Your task to perform on an android device: Open calendar and show me the fourth week of next month Image 0: 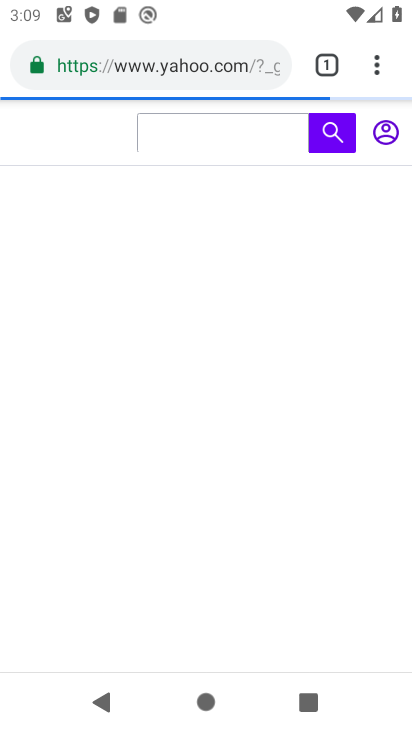
Step 0: press back button
Your task to perform on an android device: Open calendar and show me the fourth week of next month Image 1: 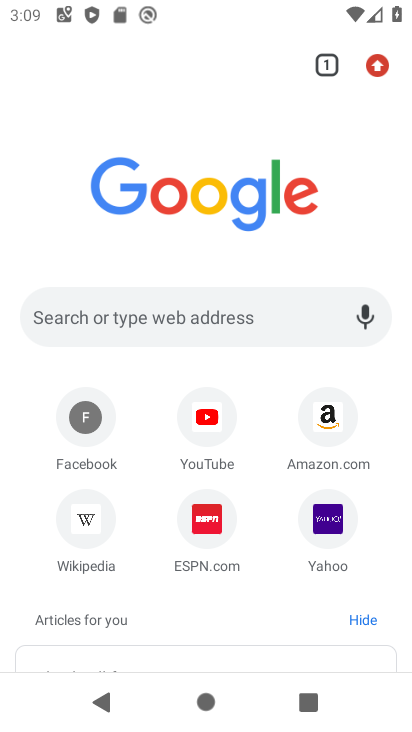
Step 1: press back button
Your task to perform on an android device: Open calendar and show me the fourth week of next month Image 2: 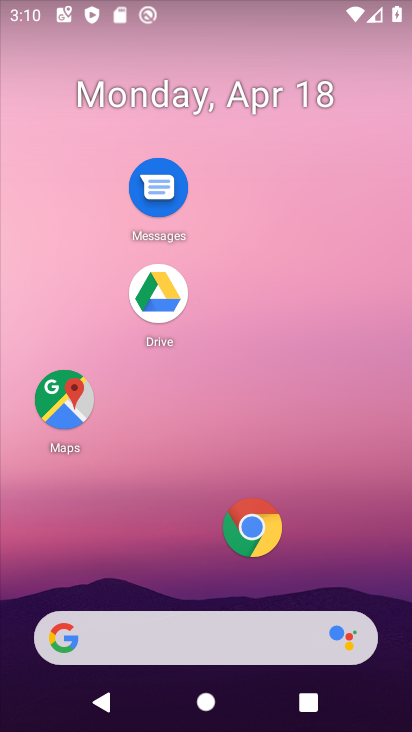
Step 2: drag from (189, 515) to (226, 4)
Your task to perform on an android device: Open calendar and show me the fourth week of next month Image 3: 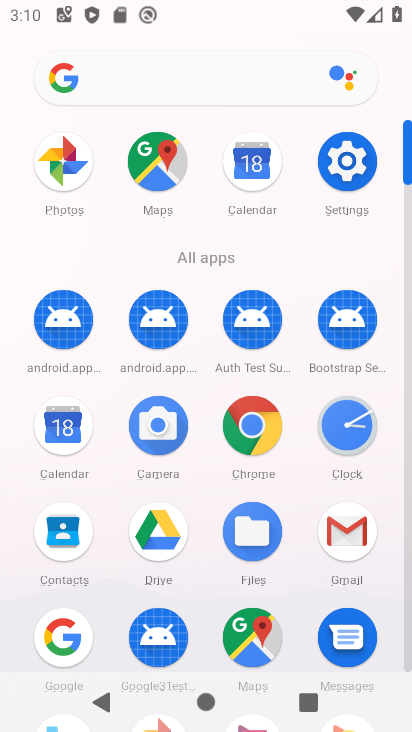
Step 3: click (72, 431)
Your task to perform on an android device: Open calendar and show me the fourth week of next month Image 4: 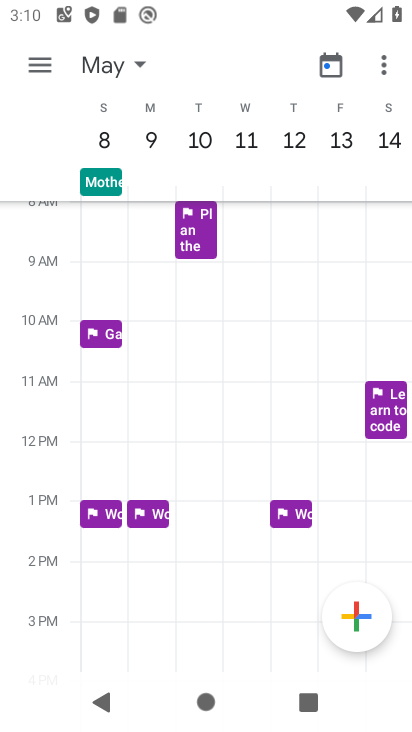
Step 4: click (340, 68)
Your task to perform on an android device: Open calendar and show me the fourth week of next month Image 5: 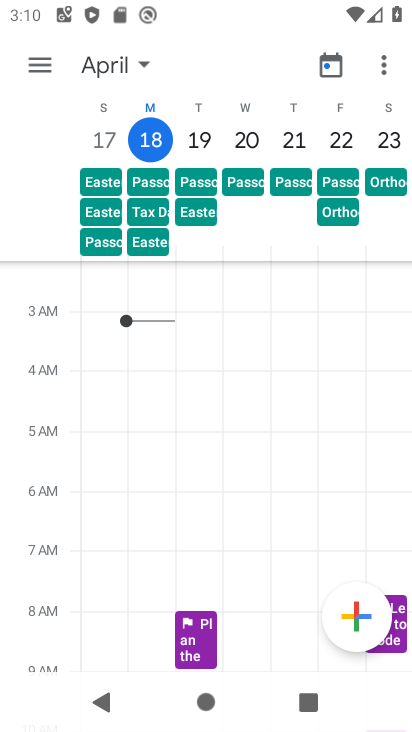
Step 5: click (129, 71)
Your task to perform on an android device: Open calendar and show me the fourth week of next month Image 6: 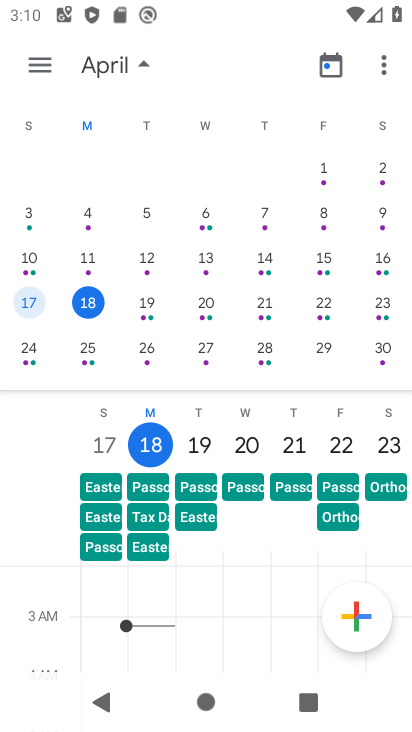
Step 6: drag from (363, 282) to (14, 279)
Your task to perform on an android device: Open calendar and show me the fourth week of next month Image 7: 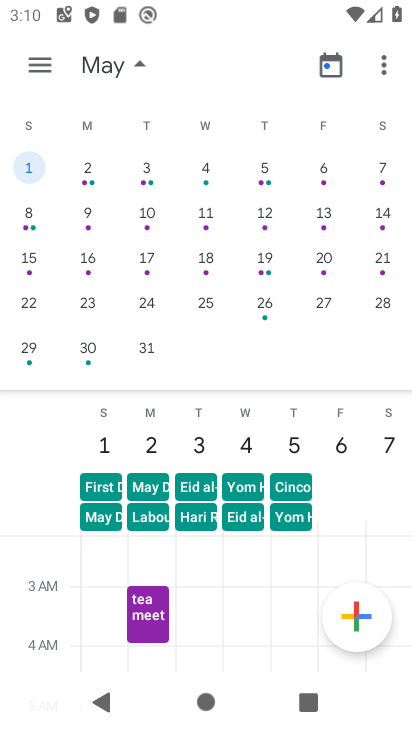
Step 7: click (102, 308)
Your task to perform on an android device: Open calendar and show me the fourth week of next month Image 8: 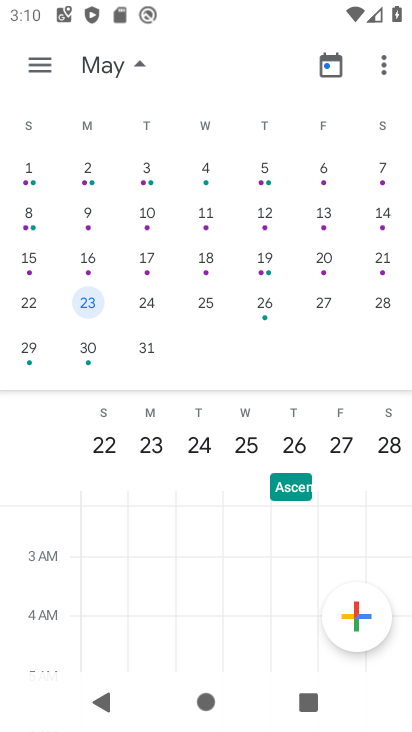
Step 8: click (37, 76)
Your task to perform on an android device: Open calendar and show me the fourth week of next month Image 9: 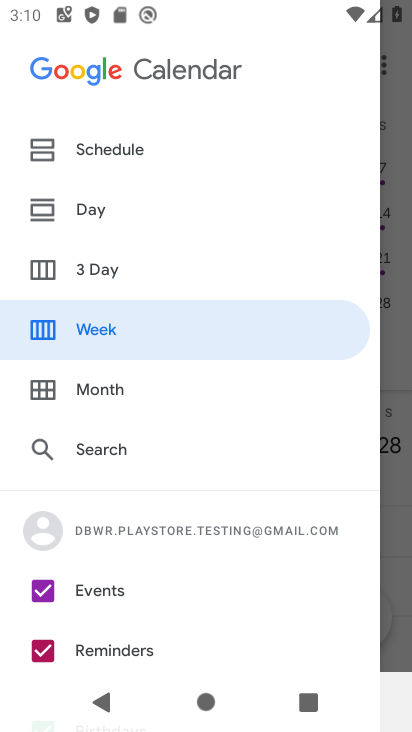
Step 9: click (141, 319)
Your task to perform on an android device: Open calendar and show me the fourth week of next month Image 10: 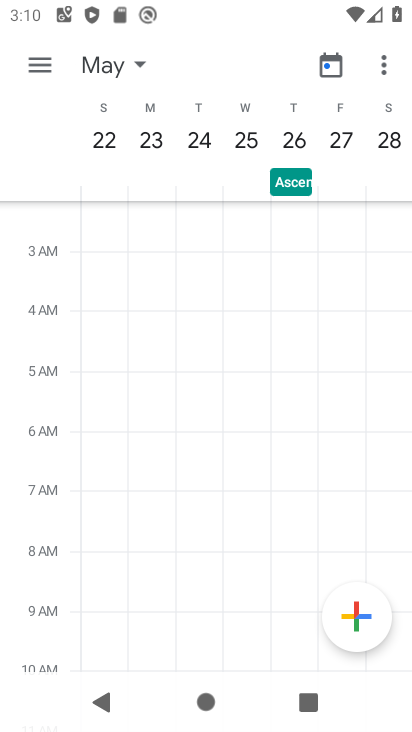
Step 10: task complete